Your task to perform on an android device: refresh tabs in the chrome app Image 0: 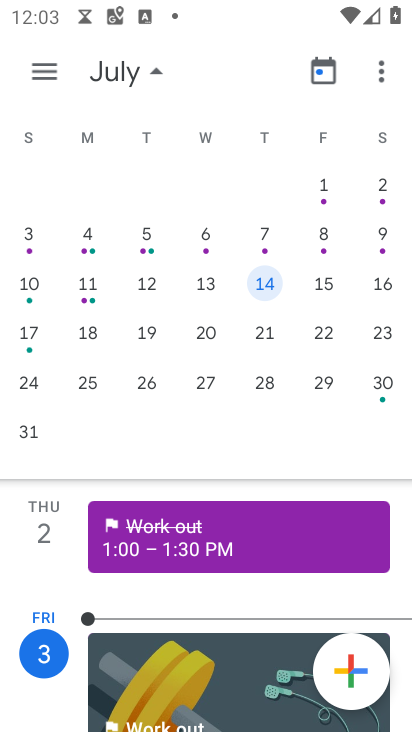
Step 0: press home button
Your task to perform on an android device: refresh tabs in the chrome app Image 1: 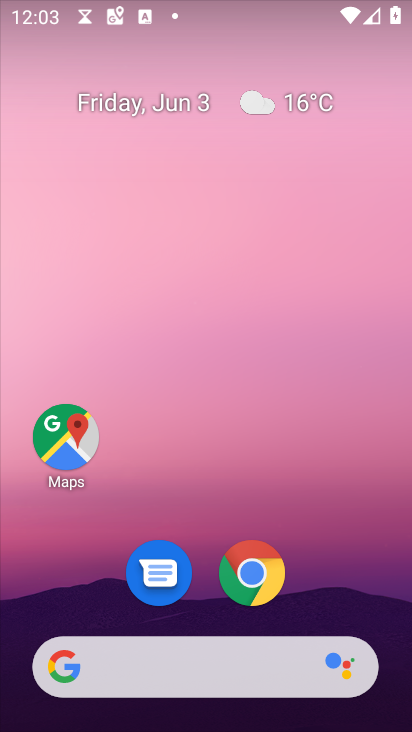
Step 1: drag from (380, 576) to (344, 21)
Your task to perform on an android device: refresh tabs in the chrome app Image 2: 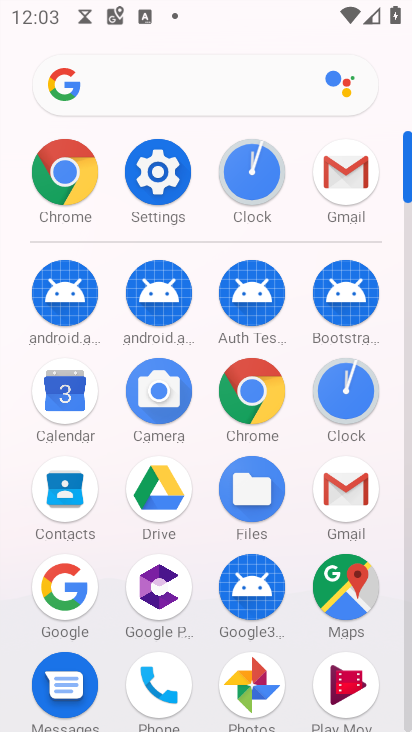
Step 2: click (48, 187)
Your task to perform on an android device: refresh tabs in the chrome app Image 3: 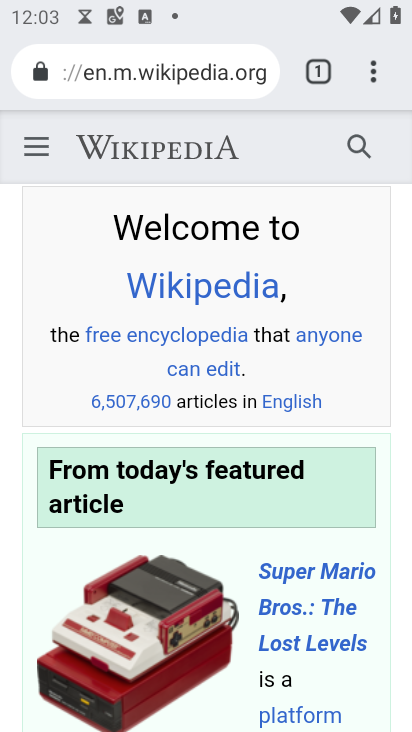
Step 3: click (382, 67)
Your task to perform on an android device: refresh tabs in the chrome app Image 4: 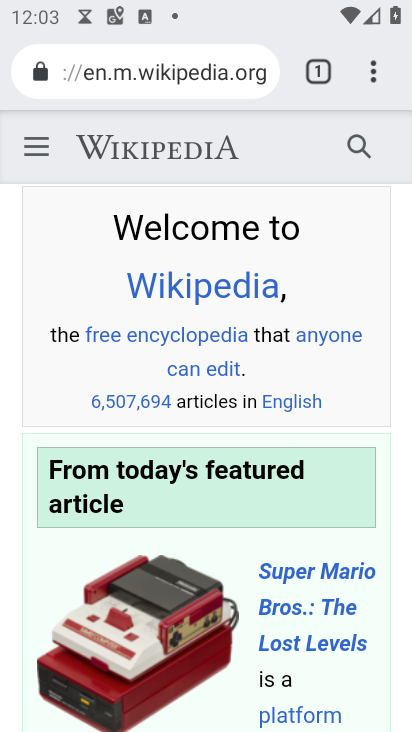
Step 4: task complete